Your task to perform on an android device: Turn on the flashlight Image 0: 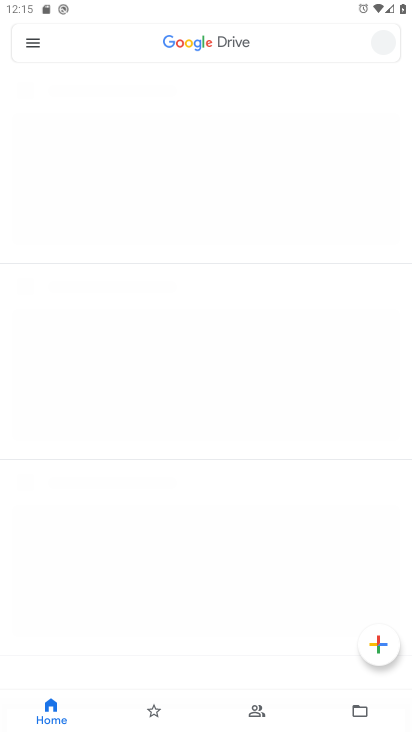
Step 0: drag from (228, 641) to (296, 230)
Your task to perform on an android device: Turn on the flashlight Image 1: 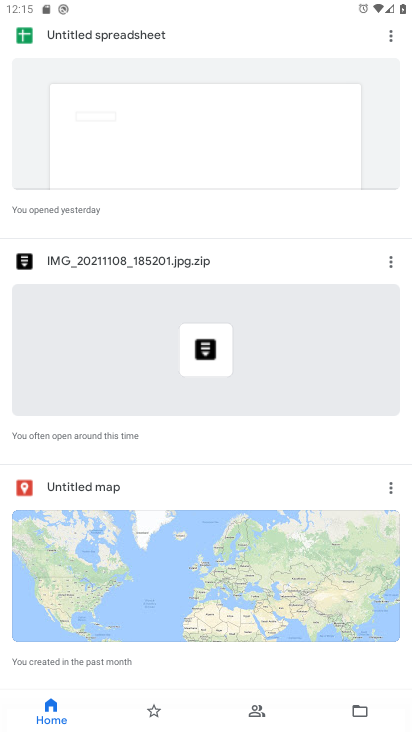
Step 1: press back button
Your task to perform on an android device: Turn on the flashlight Image 2: 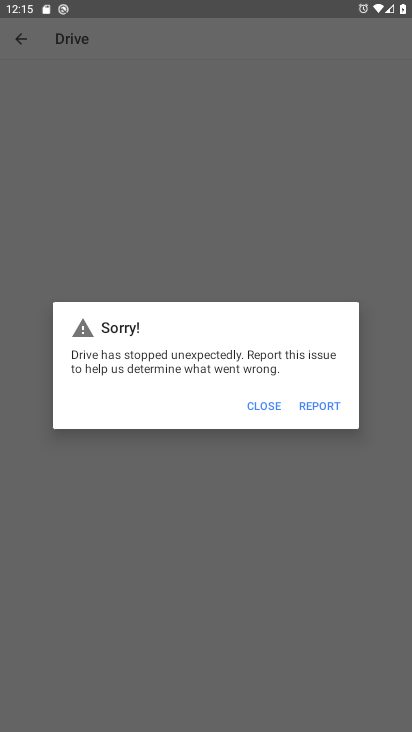
Step 2: press home button
Your task to perform on an android device: Turn on the flashlight Image 3: 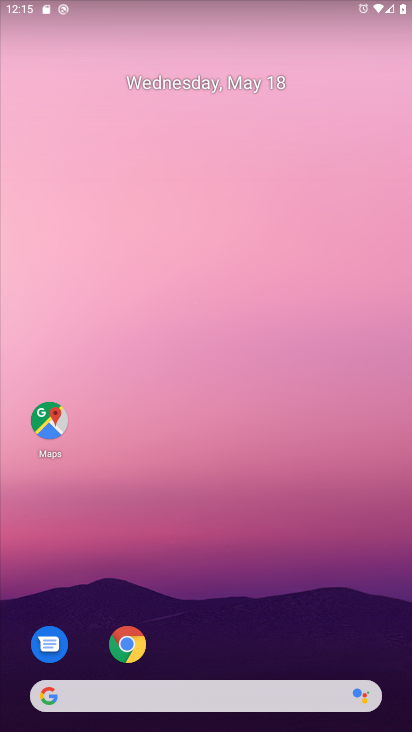
Step 3: drag from (209, 633) to (243, 112)
Your task to perform on an android device: Turn on the flashlight Image 4: 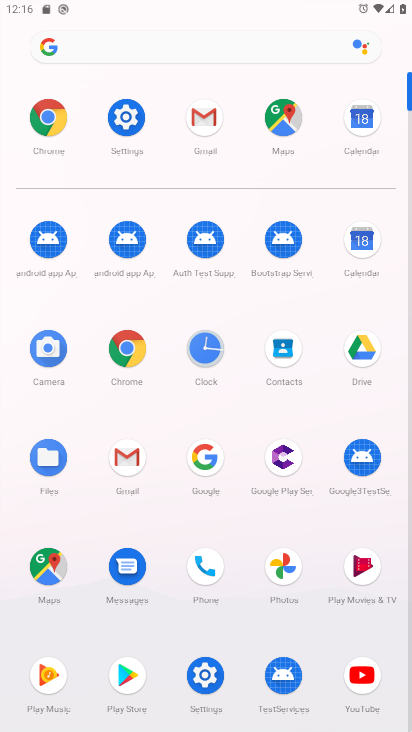
Step 4: click (201, 668)
Your task to perform on an android device: Turn on the flashlight Image 5: 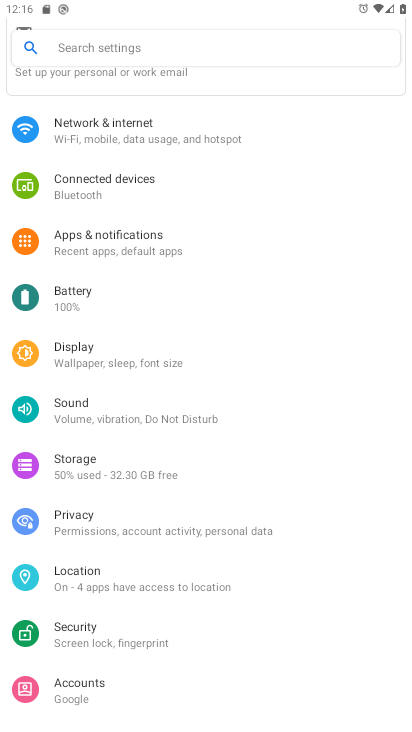
Step 5: click (102, 43)
Your task to perform on an android device: Turn on the flashlight Image 6: 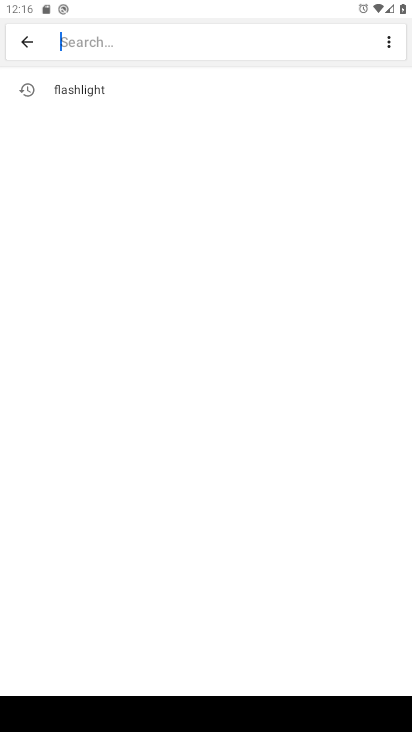
Step 6: type "flashlight"
Your task to perform on an android device: Turn on the flashlight Image 7: 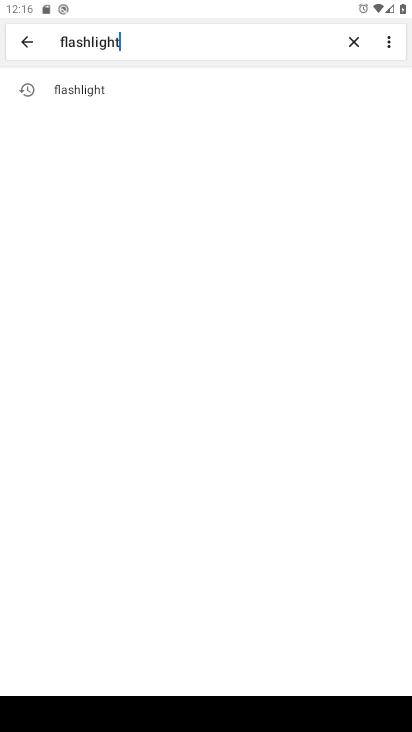
Step 7: click (97, 91)
Your task to perform on an android device: Turn on the flashlight Image 8: 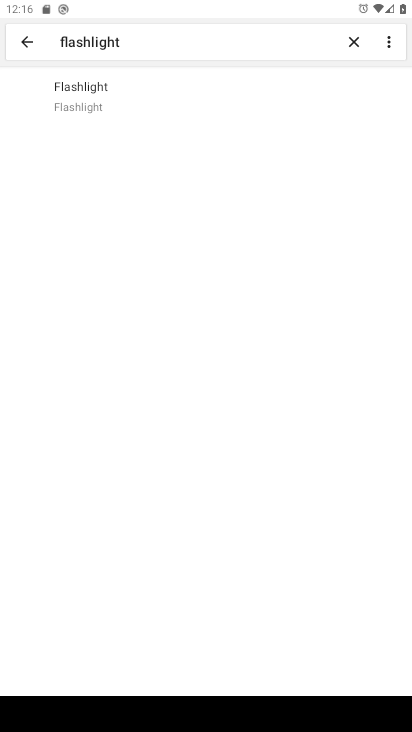
Step 8: click (99, 91)
Your task to perform on an android device: Turn on the flashlight Image 9: 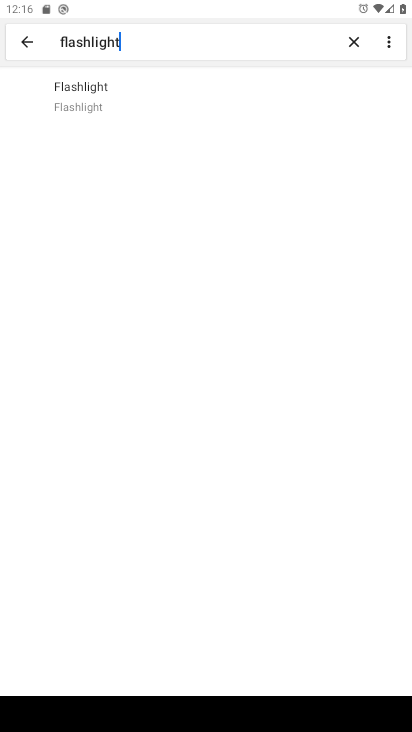
Step 9: task complete